Your task to perform on an android device: Show me the alarms in the clock app Image 0: 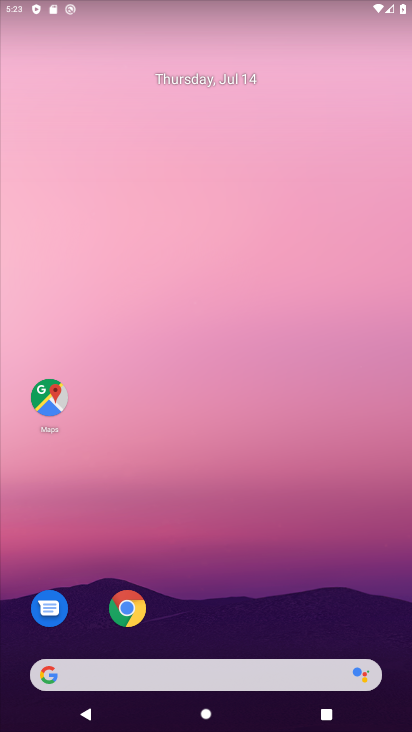
Step 0: drag from (196, 671) to (235, 165)
Your task to perform on an android device: Show me the alarms in the clock app Image 1: 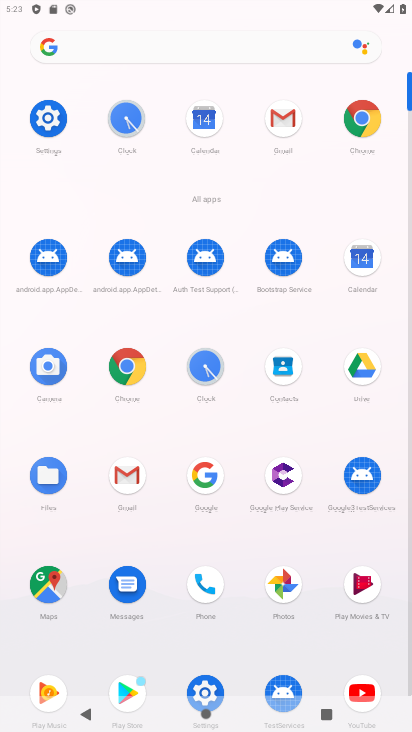
Step 1: click (125, 114)
Your task to perform on an android device: Show me the alarms in the clock app Image 2: 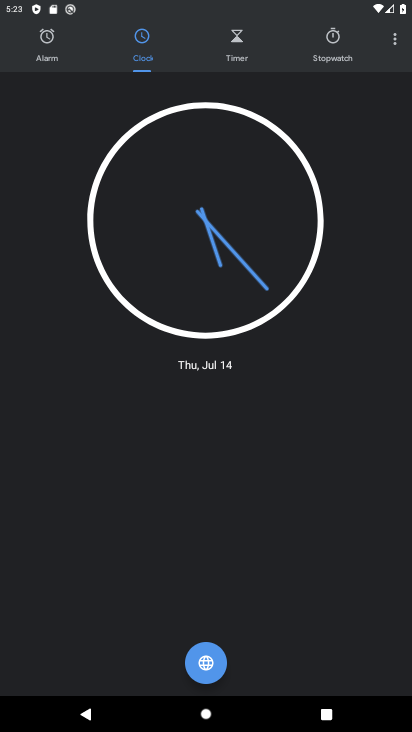
Step 2: click (51, 41)
Your task to perform on an android device: Show me the alarms in the clock app Image 3: 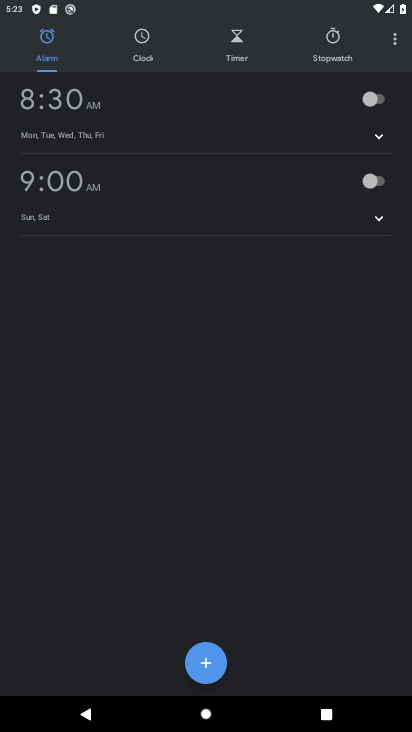
Step 3: click (204, 663)
Your task to perform on an android device: Show me the alarms in the clock app Image 4: 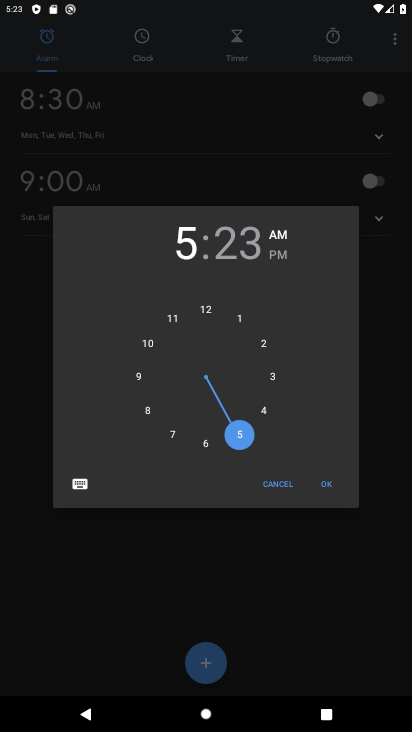
Step 4: click (141, 380)
Your task to perform on an android device: Show me the alarms in the clock app Image 5: 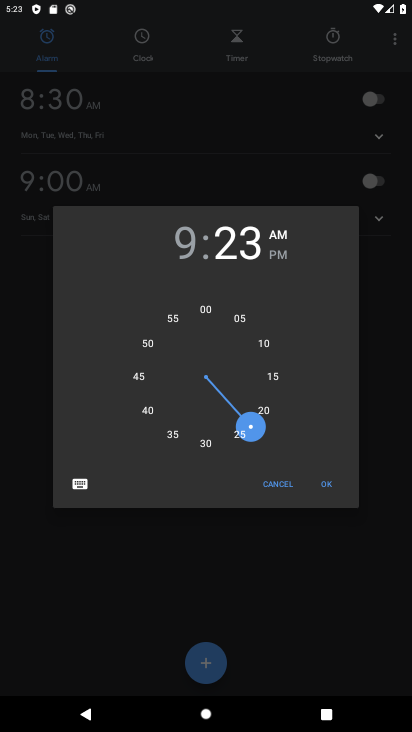
Step 5: click (141, 380)
Your task to perform on an android device: Show me the alarms in the clock app Image 6: 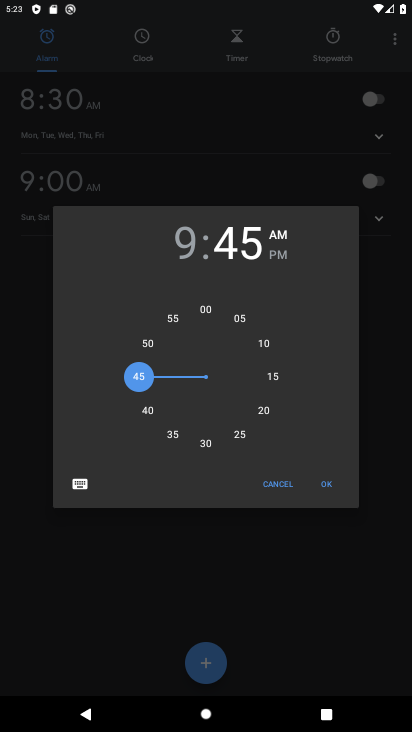
Step 6: click (285, 260)
Your task to perform on an android device: Show me the alarms in the clock app Image 7: 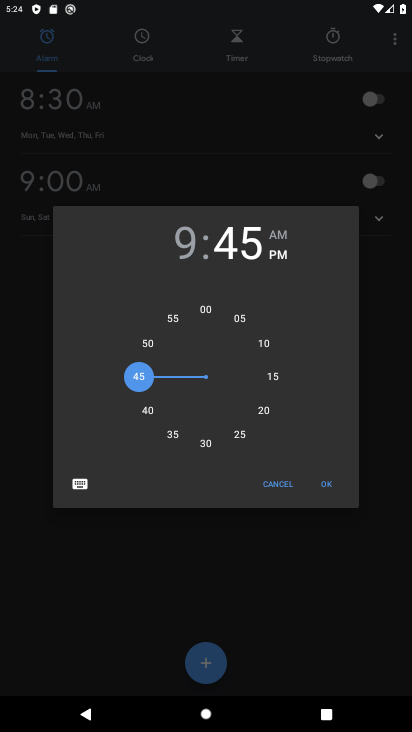
Step 7: click (329, 480)
Your task to perform on an android device: Show me the alarms in the clock app Image 8: 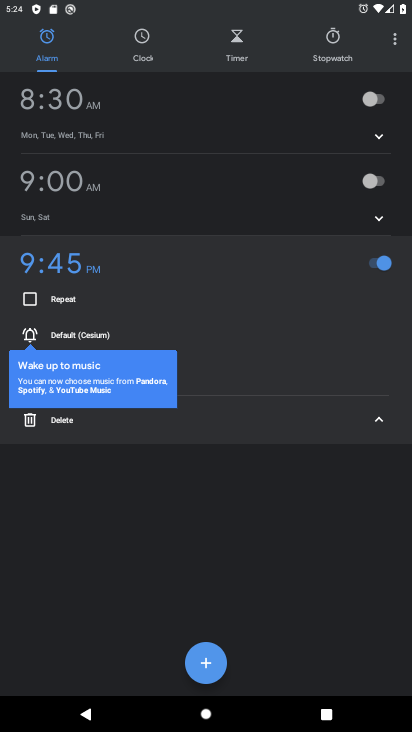
Step 8: task complete